Your task to perform on an android device: Go to Google maps Image 0: 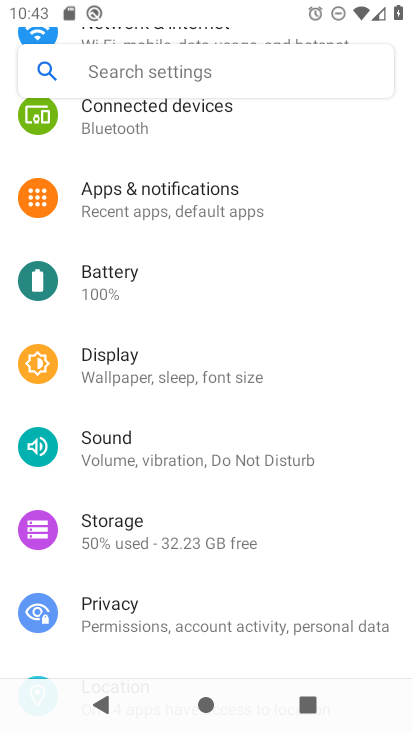
Step 0: press home button
Your task to perform on an android device: Go to Google maps Image 1: 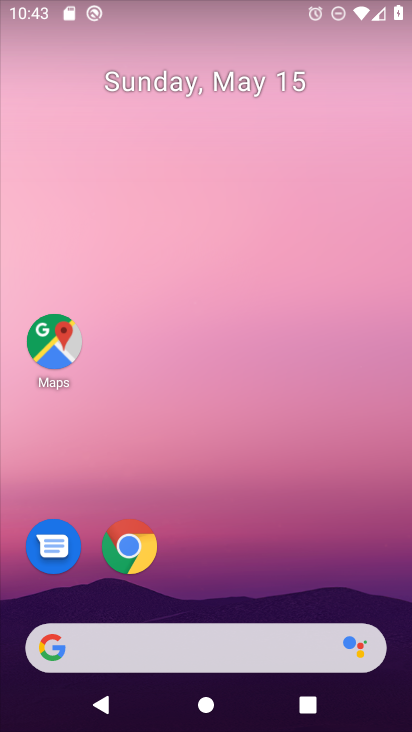
Step 1: click (65, 342)
Your task to perform on an android device: Go to Google maps Image 2: 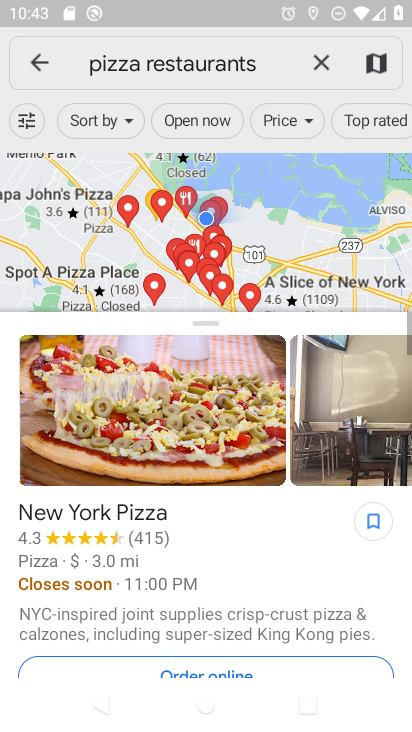
Step 2: task complete